Your task to perform on an android device: Go to notification settings Image 0: 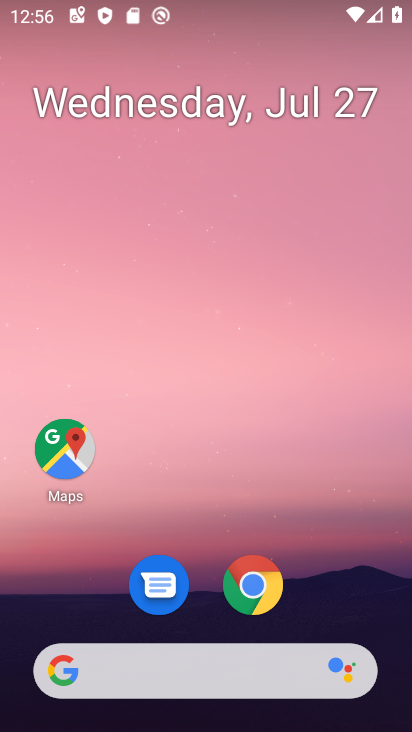
Step 0: press home button
Your task to perform on an android device: Go to notification settings Image 1: 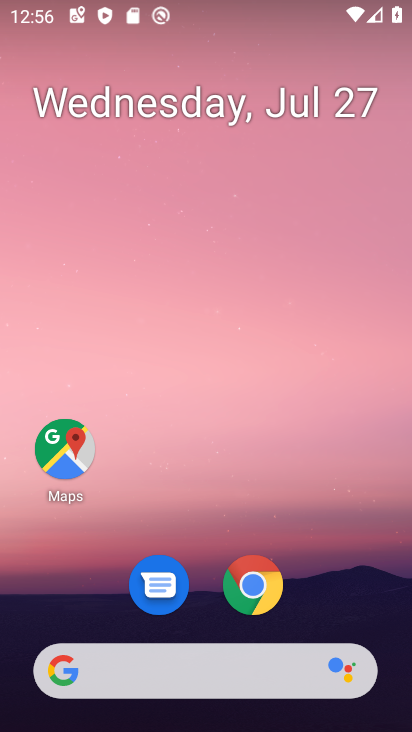
Step 1: click (259, 527)
Your task to perform on an android device: Go to notification settings Image 2: 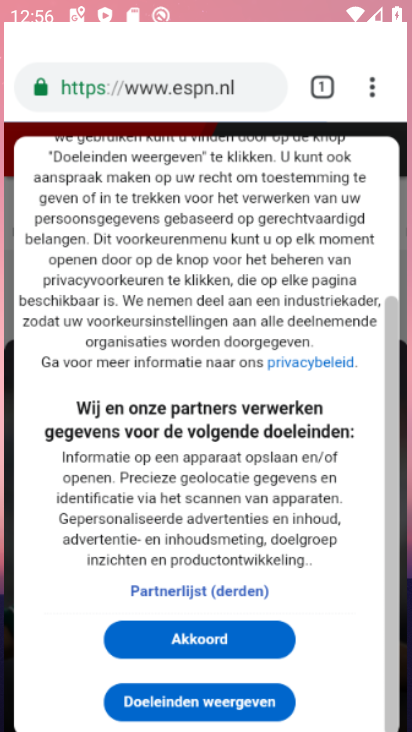
Step 2: drag from (211, 9) to (230, 536)
Your task to perform on an android device: Go to notification settings Image 3: 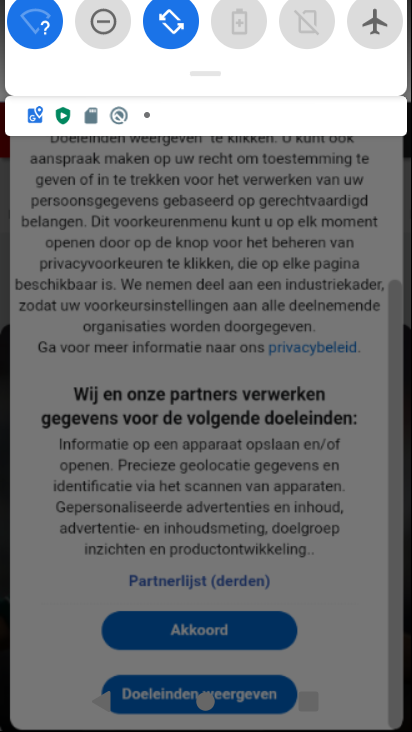
Step 3: press home button
Your task to perform on an android device: Go to notification settings Image 4: 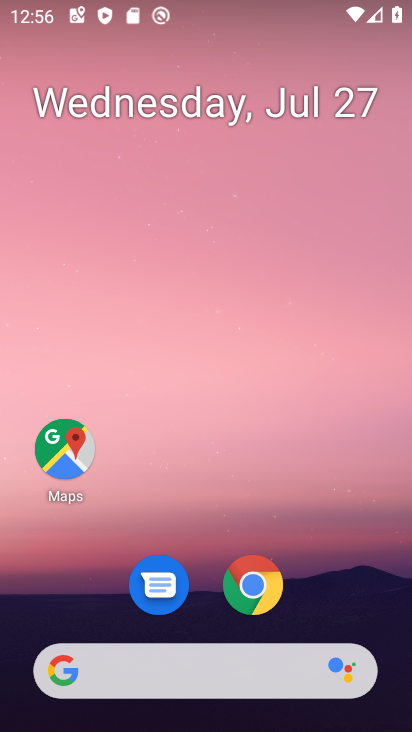
Step 4: drag from (213, 661) to (395, 3)
Your task to perform on an android device: Go to notification settings Image 5: 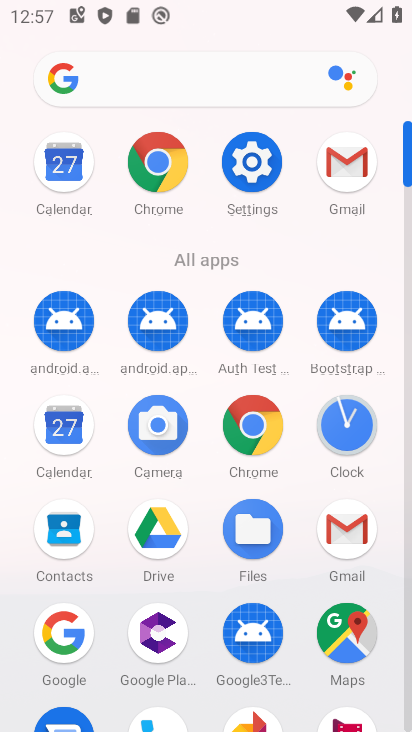
Step 5: click (251, 168)
Your task to perform on an android device: Go to notification settings Image 6: 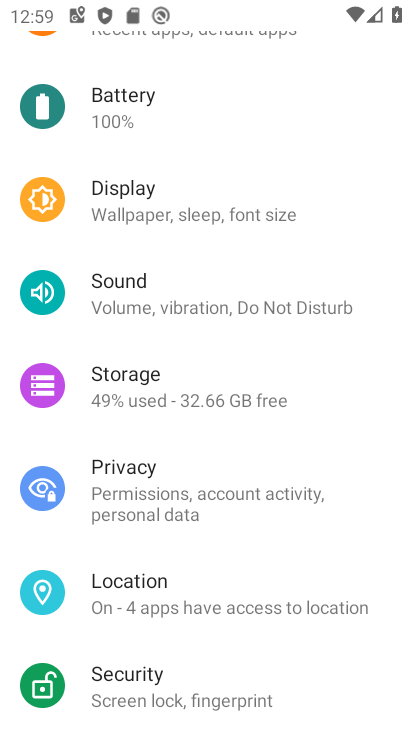
Step 6: drag from (192, 128) to (213, 531)
Your task to perform on an android device: Go to notification settings Image 7: 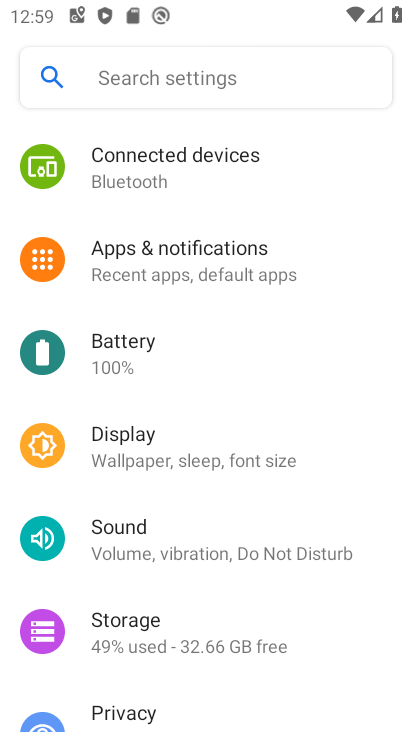
Step 7: click (208, 249)
Your task to perform on an android device: Go to notification settings Image 8: 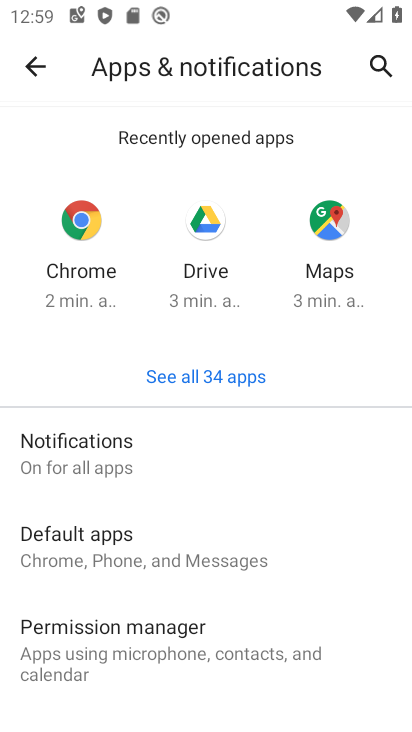
Step 8: click (112, 442)
Your task to perform on an android device: Go to notification settings Image 9: 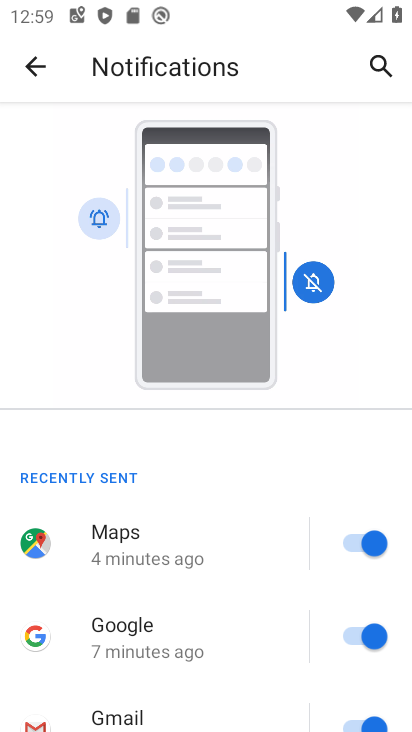
Step 9: task complete